Your task to perform on an android device: change alarm snooze length Image 0: 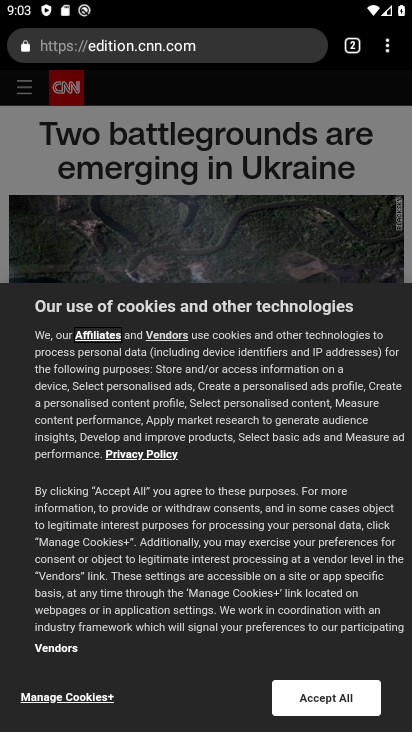
Step 0: press home button
Your task to perform on an android device: change alarm snooze length Image 1: 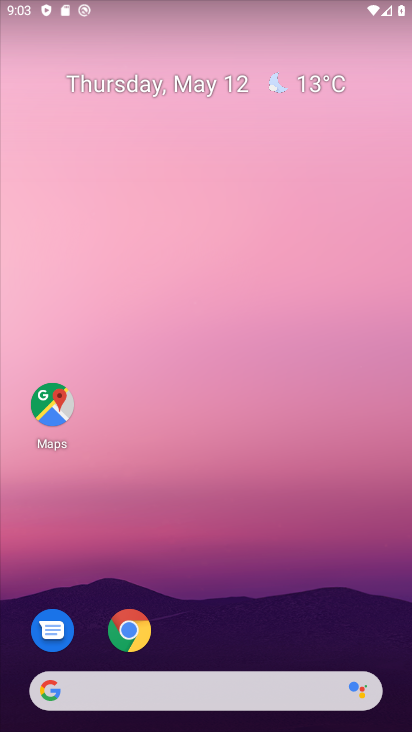
Step 1: drag from (208, 694) to (301, 224)
Your task to perform on an android device: change alarm snooze length Image 2: 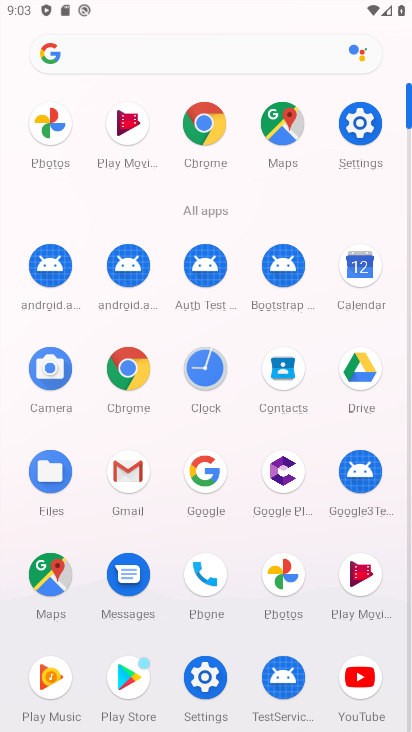
Step 2: click (194, 370)
Your task to perform on an android device: change alarm snooze length Image 3: 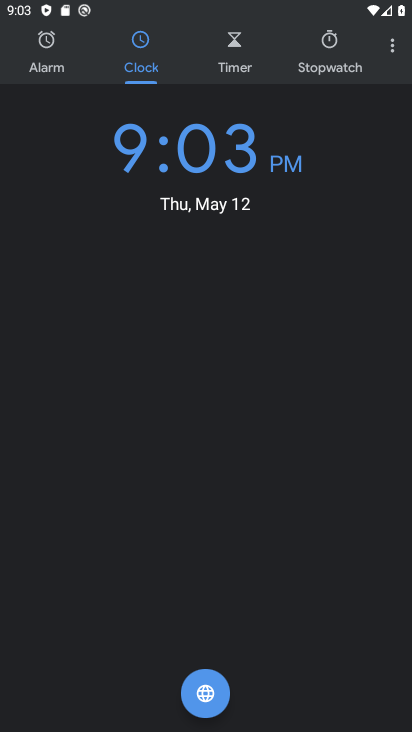
Step 3: click (389, 44)
Your task to perform on an android device: change alarm snooze length Image 4: 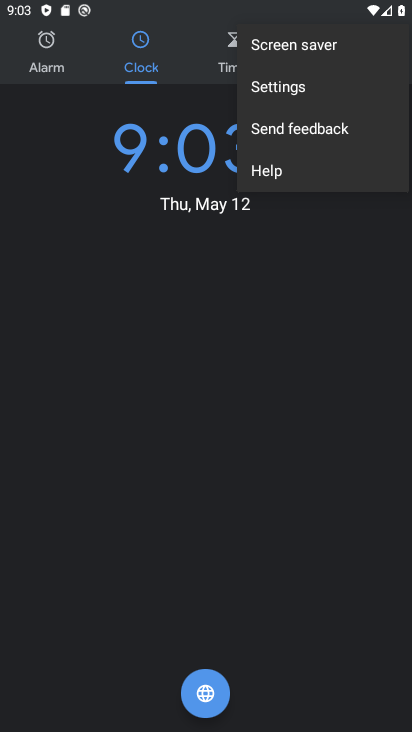
Step 4: click (290, 89)
Your task to perform on an android device: change alarm snooze length Image 5: 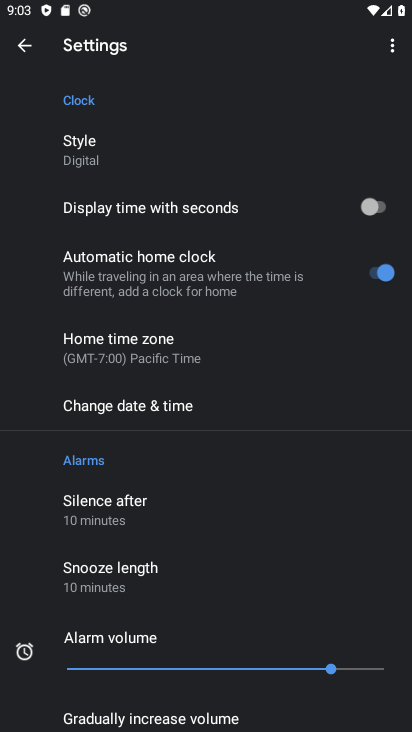
Step 5: click (166, 565)
Your task to perform on an android device: change alarm snooze length Image 6: 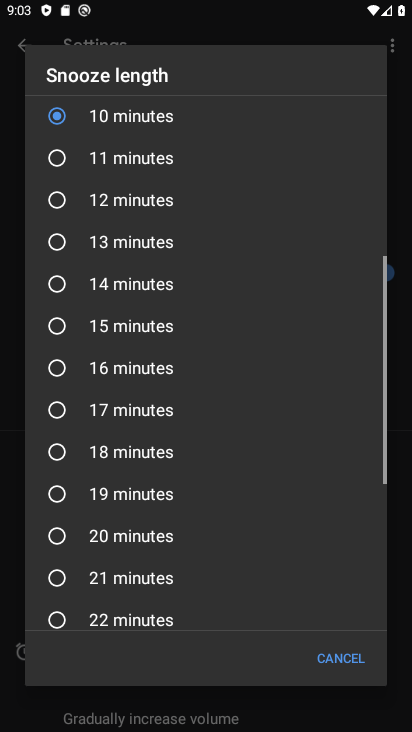
Step 6: click (97, 621)
Your task to perform on an android device: change alarm snooze length Image 7: 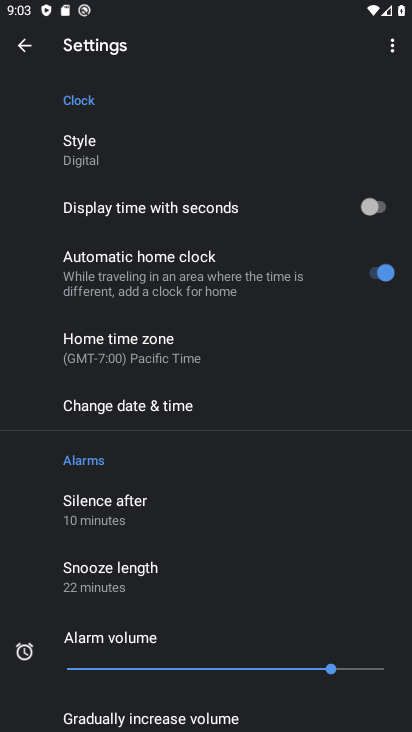
Step 7: task complete